Your task to perform on an android device: Check the news Image 0: 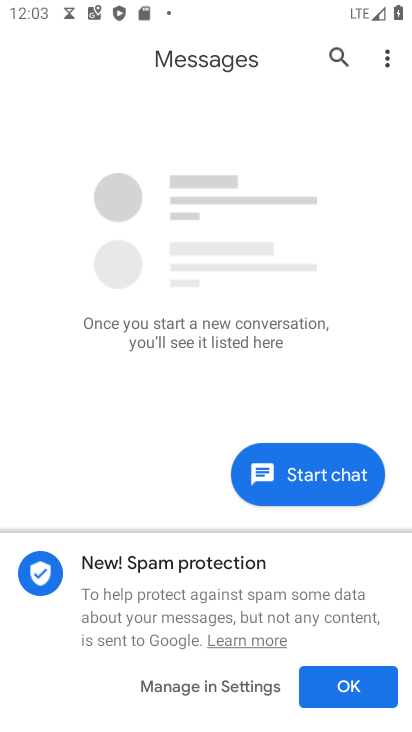
Step 0: press home button
Your task to perform on an android device: Check the news Image 1: 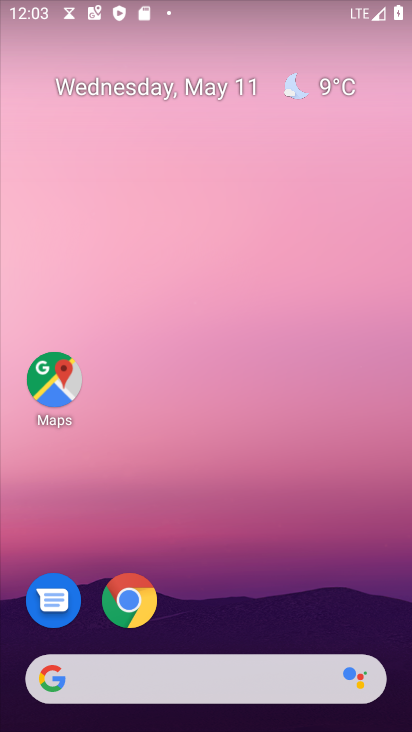
Step 1: drag from (253, 206) to (248, 56)
Your task to perform on an android device: Check the news Image 2: 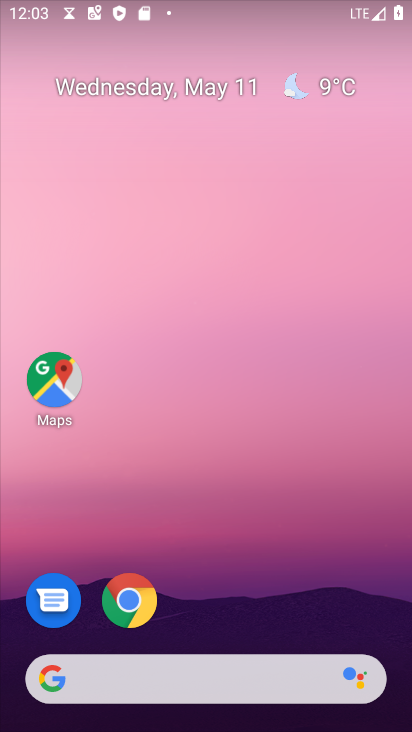
Step 2: drag from (246, 591) to (222, 56)
Your task to perform on an android device: Check the news Image 3: 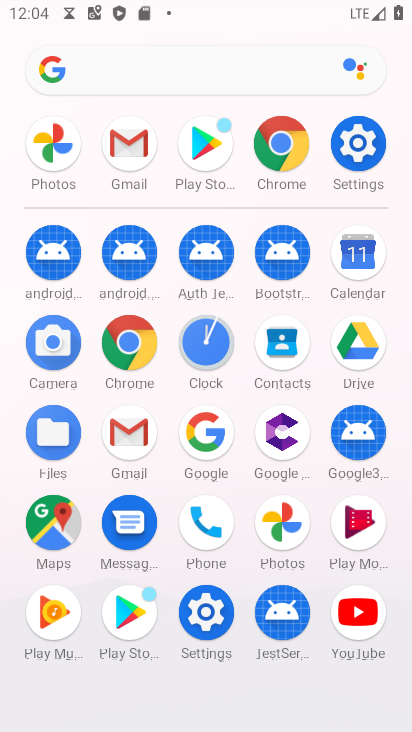
Step 3: click (209, 439)
Your task to perform on an android device: Check the news Image 4: 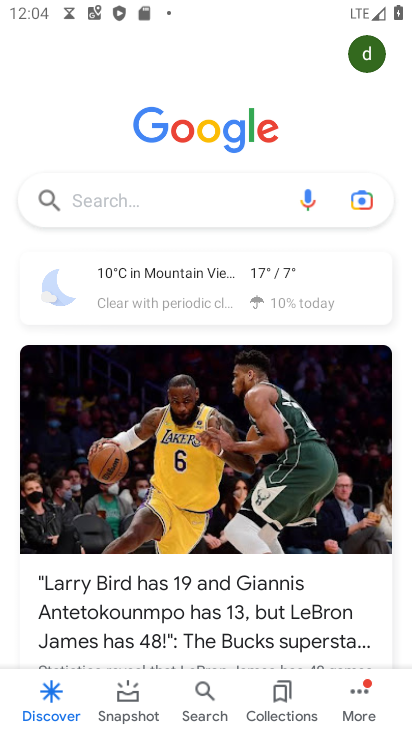
Step 4: task complete